Your task to perform on an android device: open app "Contacts" Image 0: 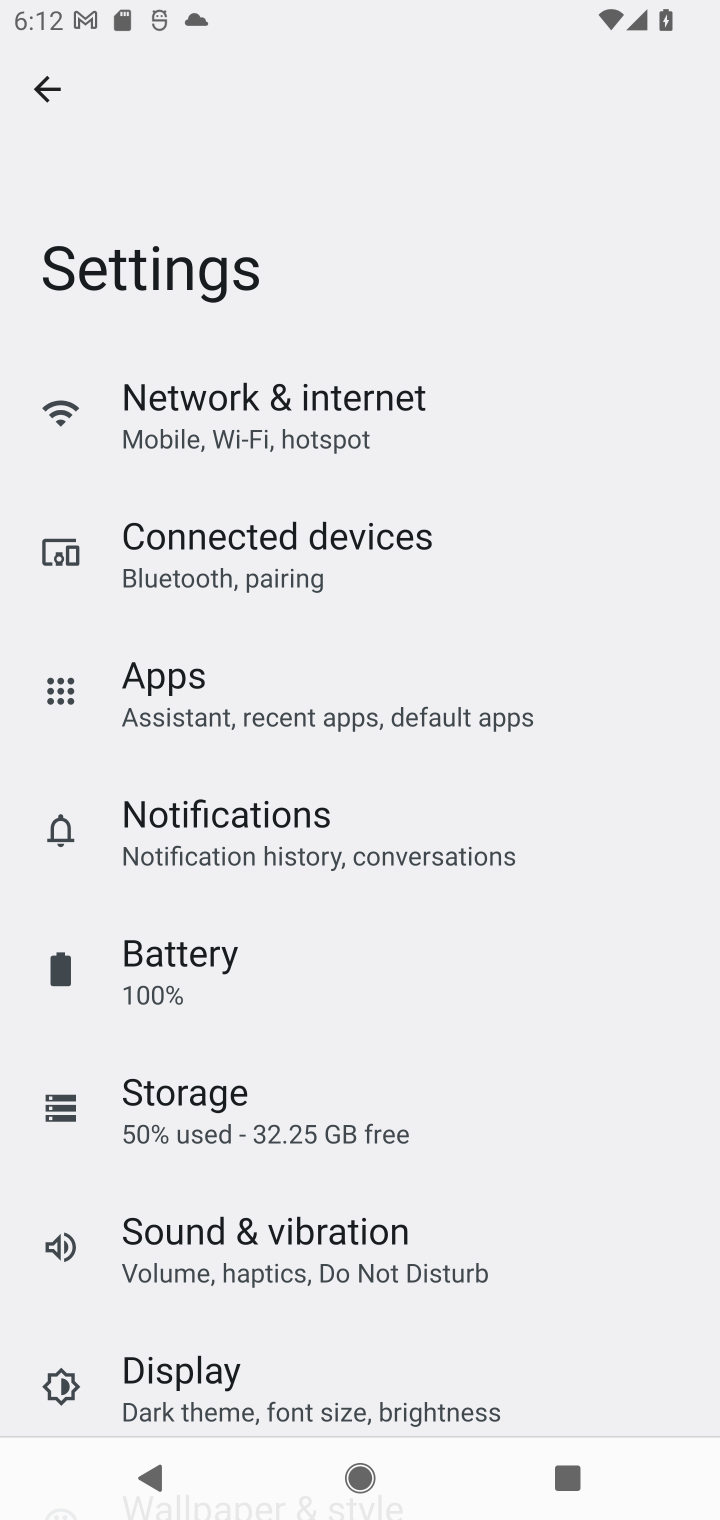
Step 0: press home button
Your task to perform on an android device: open app "Contacts" Image 1: 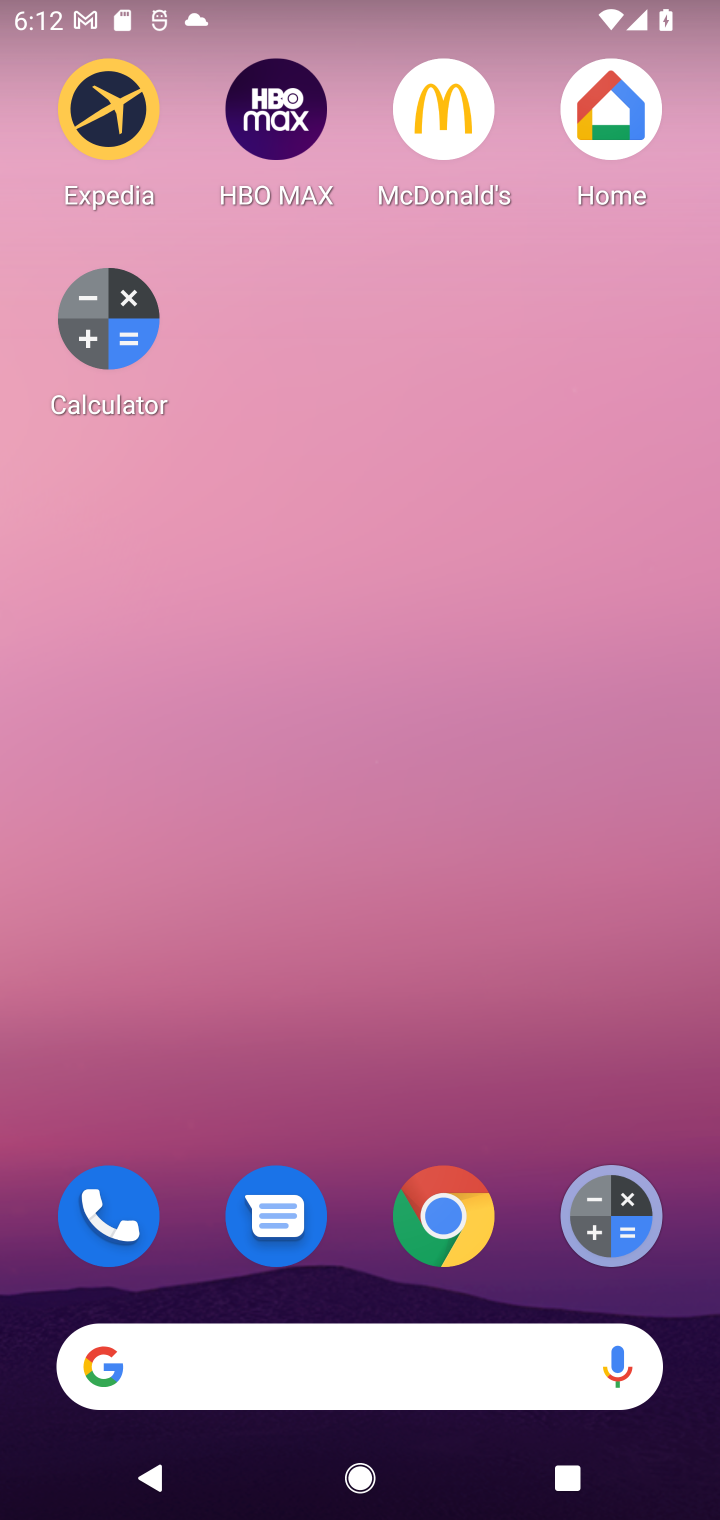
Step 1: drag from (274, 1229) to (376, 119)
Your task to perform on an android device: open app "Contacts" Image 2: 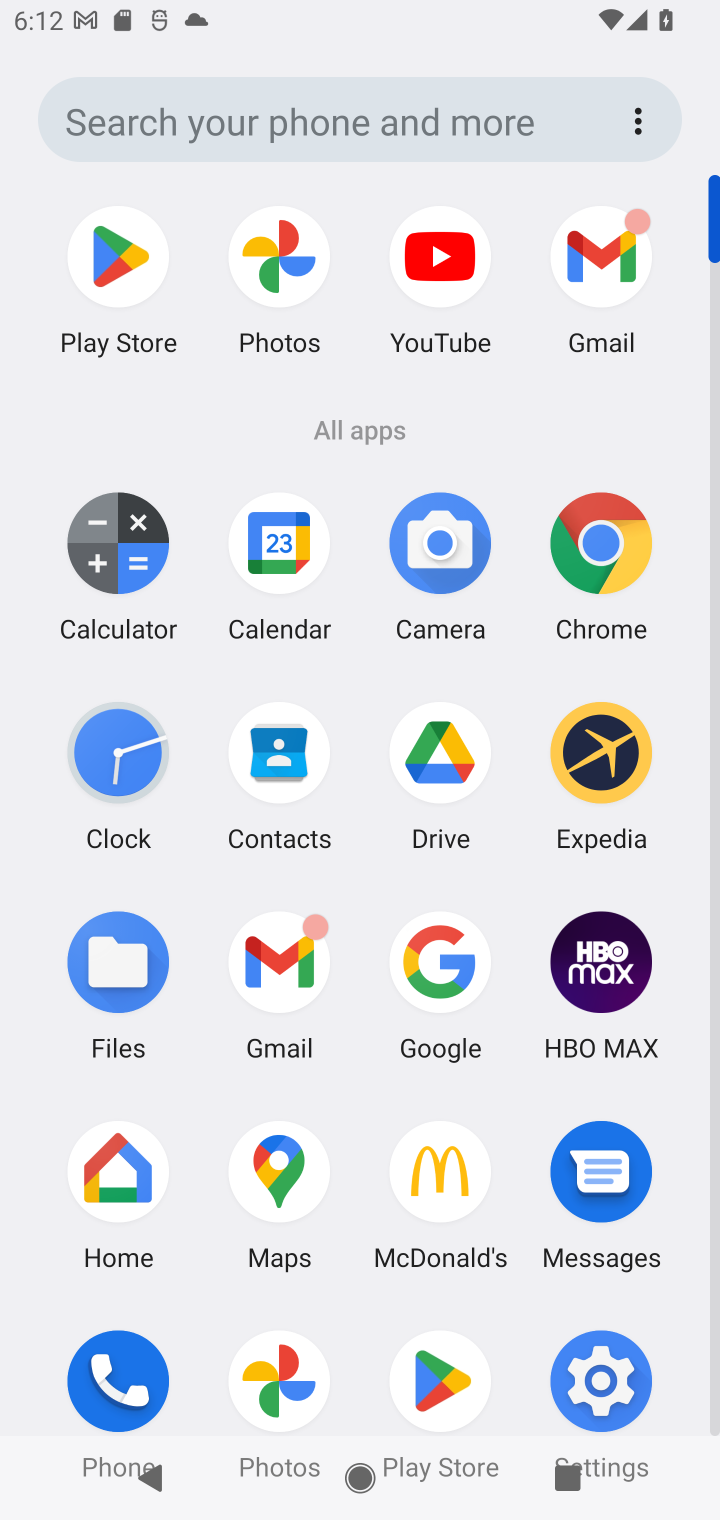
Step 2: click (305, 750)
Your task to perform on an android device: open app "Contacts" Image 3: 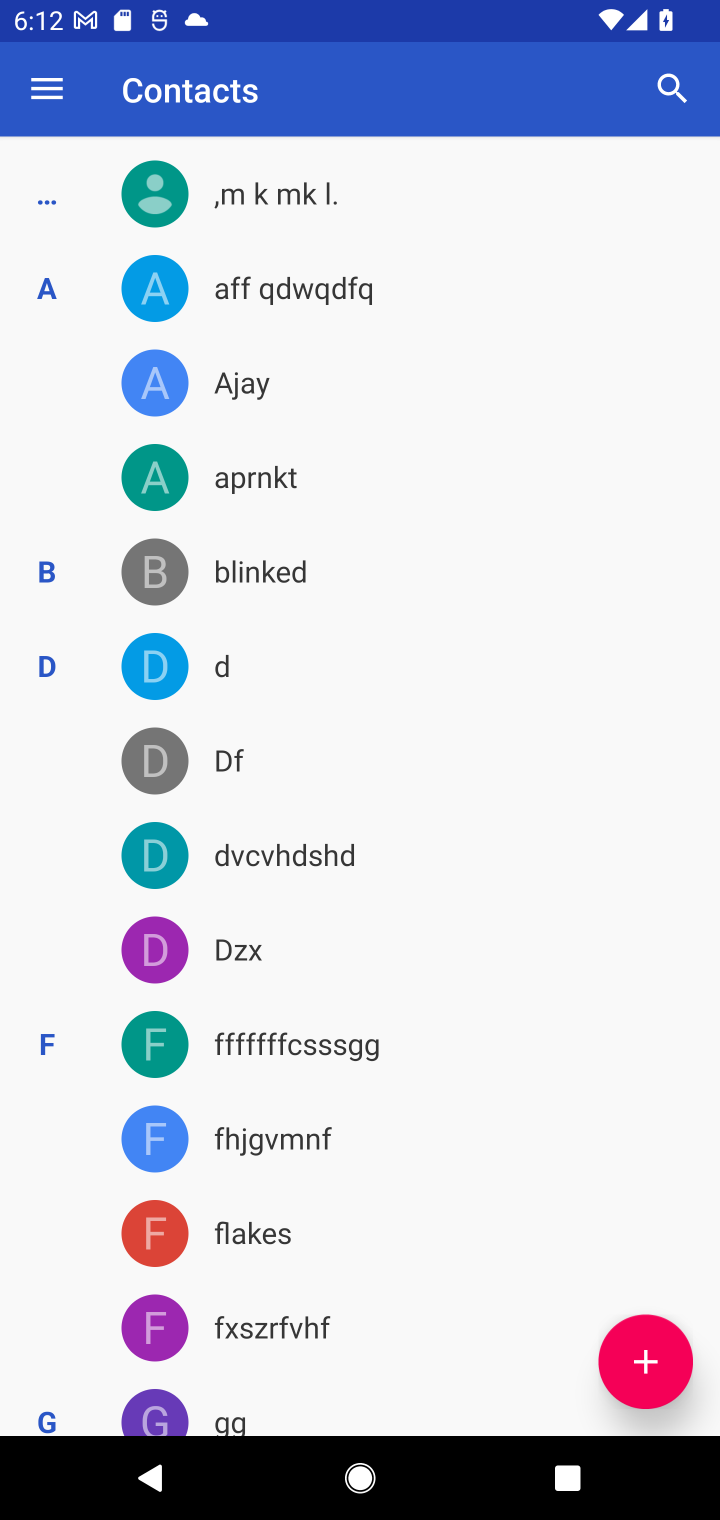
Step 3: task complete